Your task to perform on an android device: Open ESPN.com Image 0: 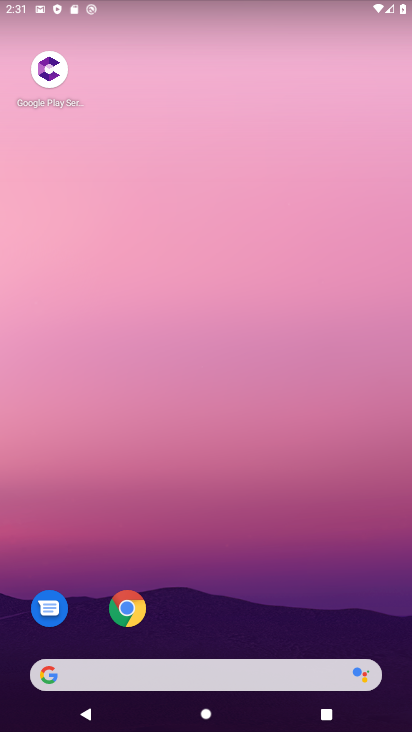
Step 0: click (139, 605)
Your task to perform on an android device: Open ESPN.com Image 1: 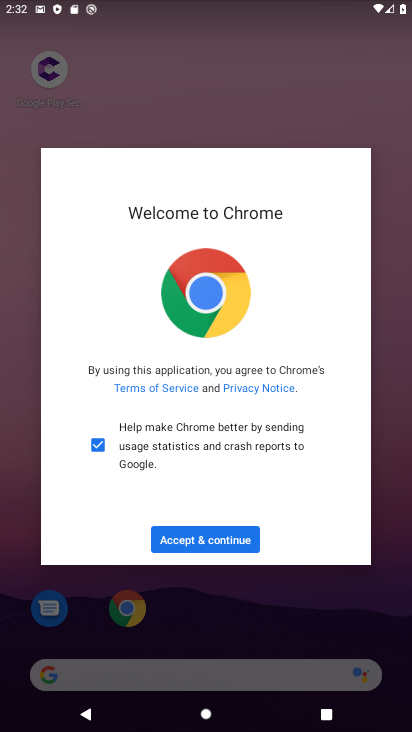
Step 1: click (224, 535)
Your task to perform on an android device: Open ESPN.com Image 2: 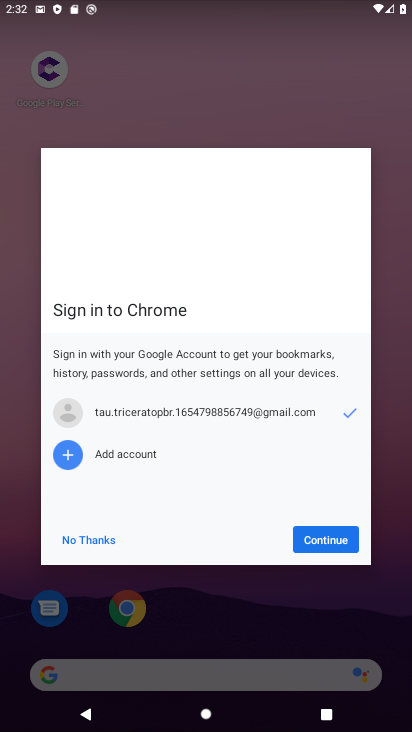
Step 2: click (311, 538)
Your task to perform on an android device: Open ESPN.com Image 3: 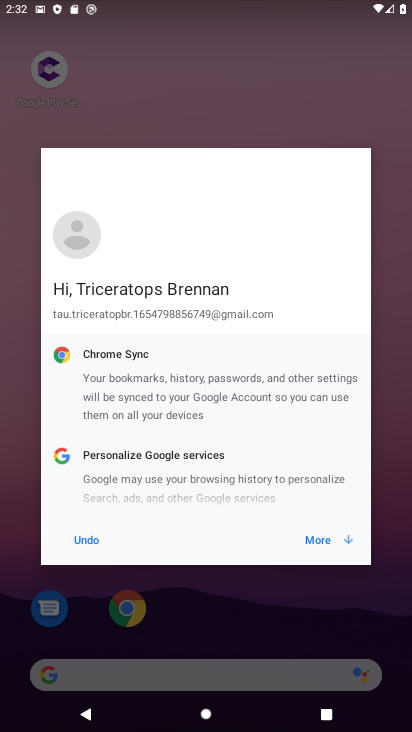
Step 3: click (311, 538)
Your task to perform on an android device: Open ESPN.com Image 4: 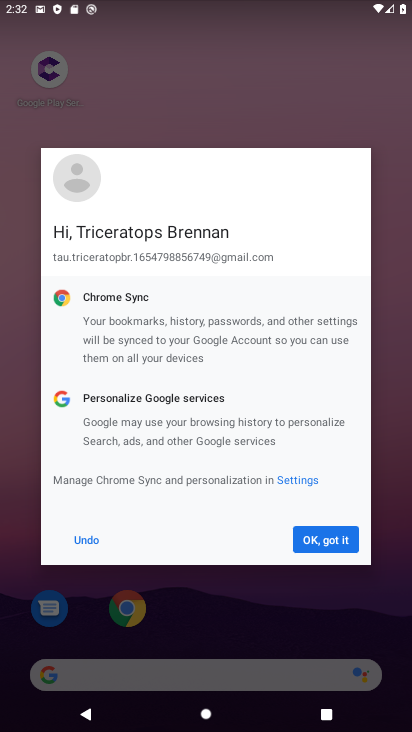
Step 4: click (311, 538)
Your task to perform on an android device: Open ESPN.com Image 5: 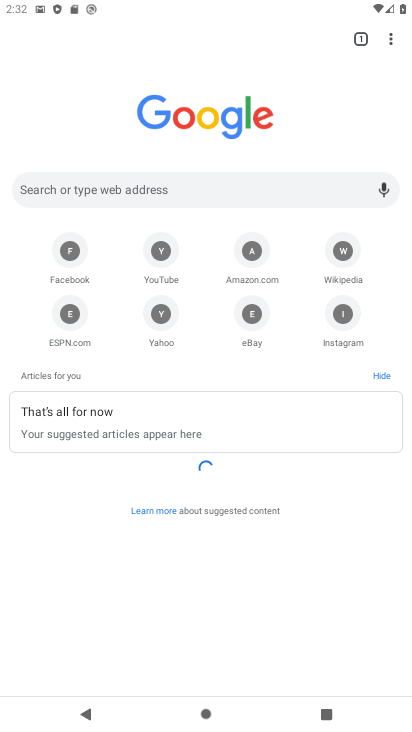
Step 5: click (77, 315)
Your task to perform on an android device: Open ESPN.com Image 6: 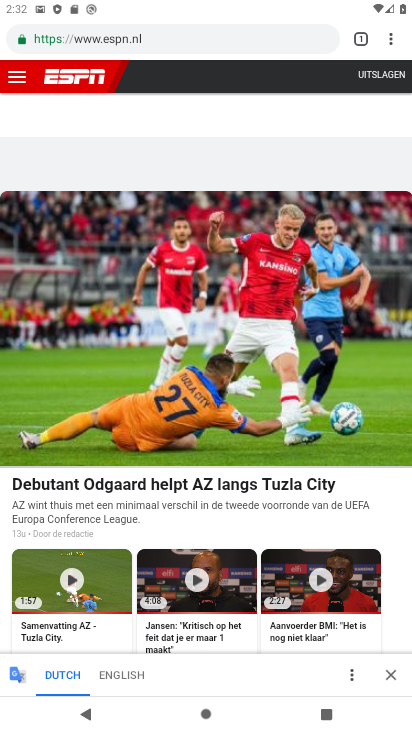
Step 6: task complete